Your task to perform on an android device: Go to display settings Image 0: 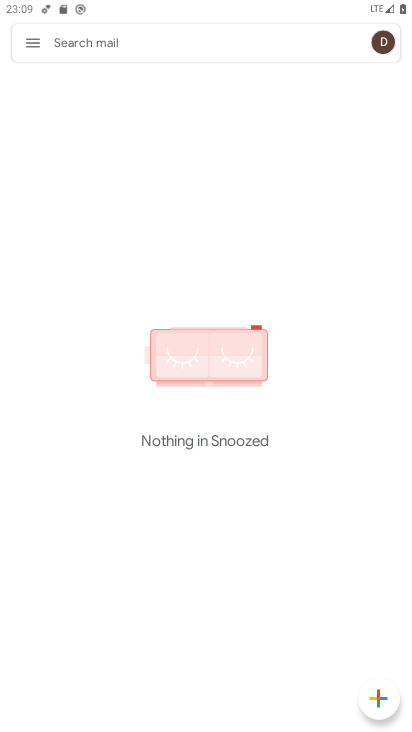
Step 0: press home button
Your task to perform on an android device: Go to display settings Image 1: 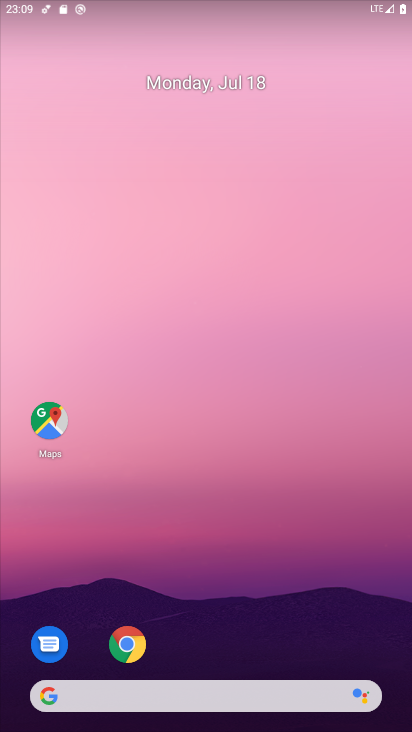
Step 1: drag from (346, 611) to (377, 68)
Your task to perform on an android device: Go to display settings Image 2: 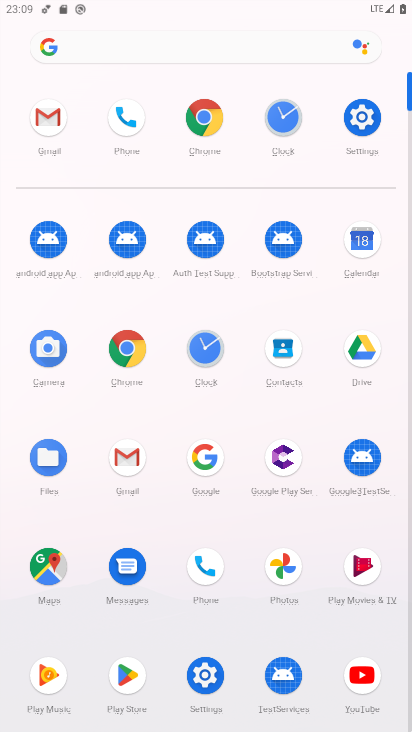
Step 2: click (365, 125)
Your task to perform on an android device: Go to display settings Image 3: 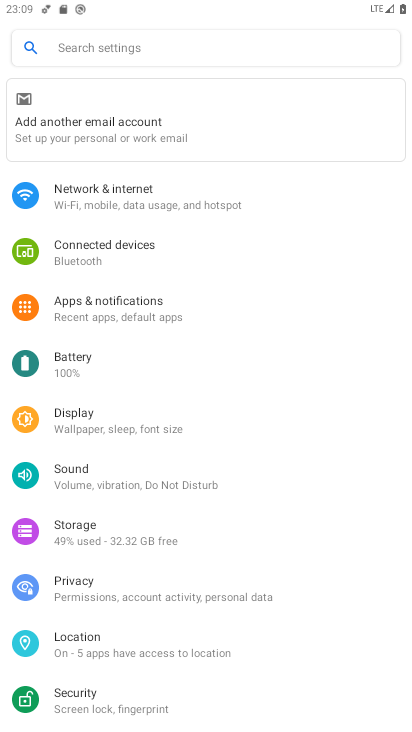
Step 3: drag from (325, 515) to (325, 394)
Your task to perform on an android device: Go to display settings Image 4: 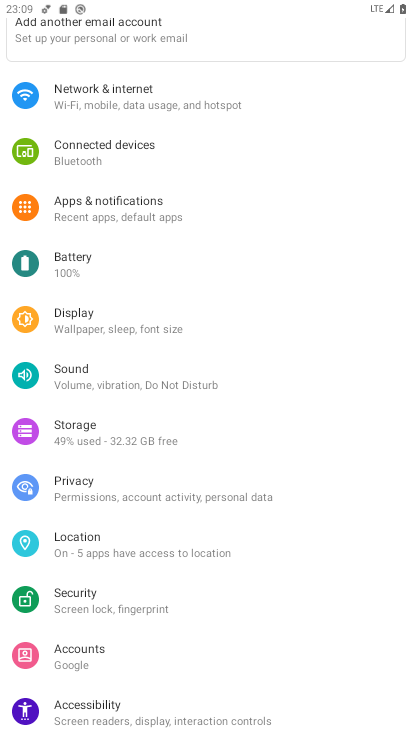
Step 4: drag from (330, 564) to (324, 439)
Your task to perform on an android device: Go to display settings Image 5: 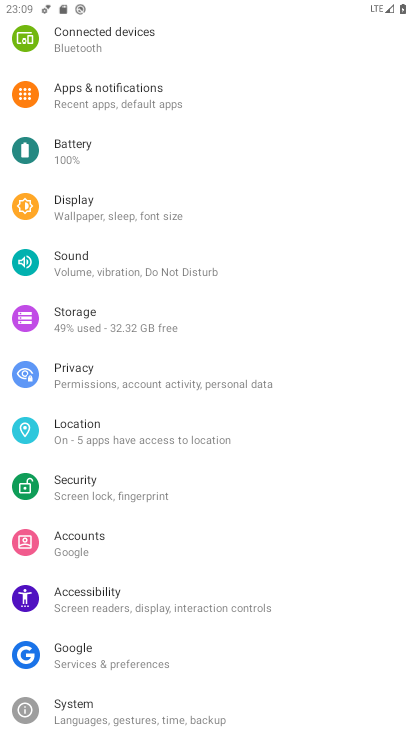
Step 5: drag from (320, 522) to (316, 381)
Your task to perform on an android device: Go to display settings Image 6: 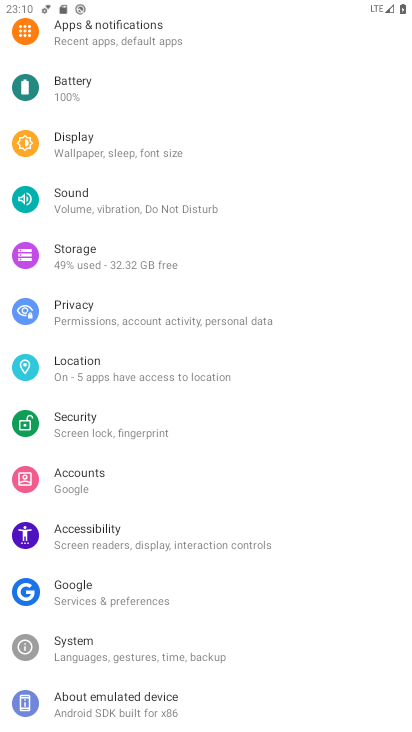
Step 6: drag from (313, 297) to (308, 412)
Your task to perform on an android device: Go to display settings Image 7: 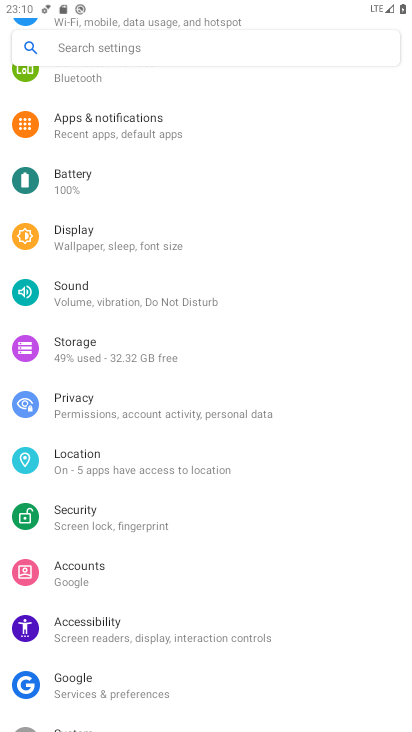
Step 7: drag from (304, 234) to (296, 403)
Your task to perform on an android device: Go to display settings Image 8: 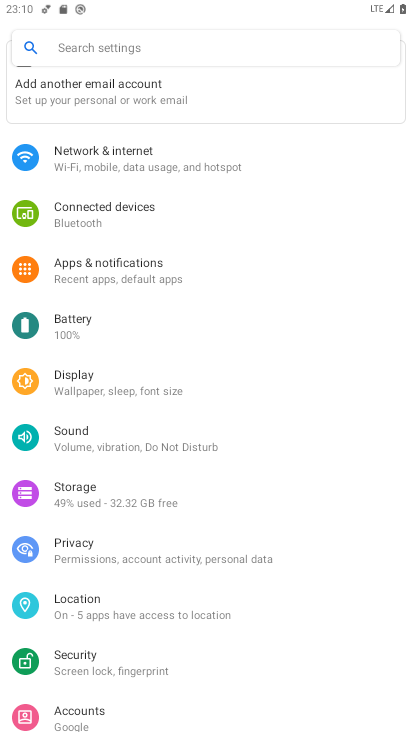
Step 8: drag from (303, 258) to (300, 402)
Your task to perform on an android device: Go to display settings Image 9: 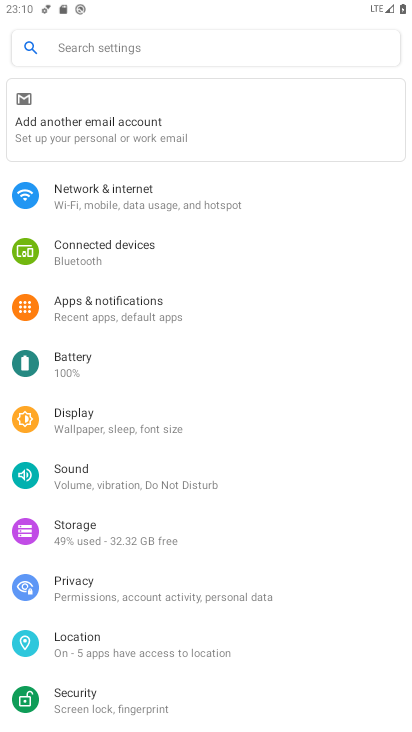
Step 9: drag from (296, 247) to (292, 424)
Your task to perform on an android device: Go to display settings Image 10: 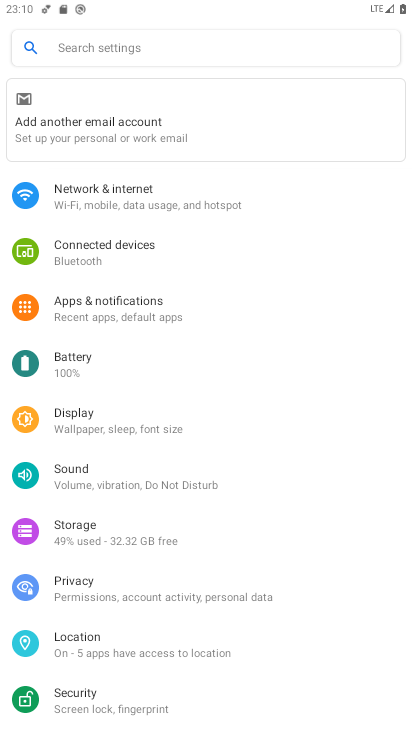
Step 10: drag from (312, 551) to (313, 432)
Your task to perform on an android device: Go to display settings Image 11: 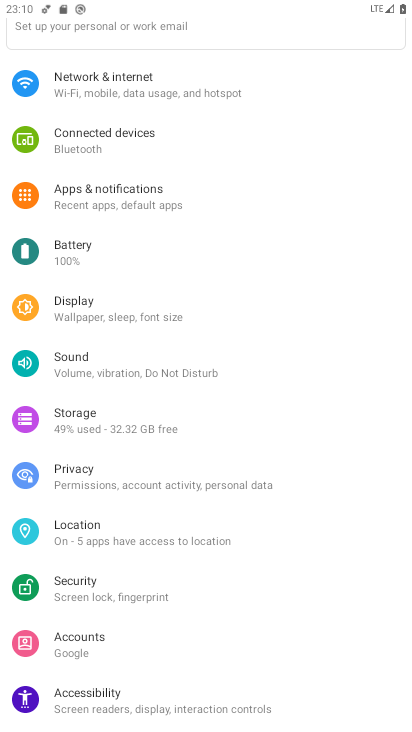
Step 11: drag from (326, 533) to (324, 442)
Your task to perform on an android device: Go to display settings Image 12: 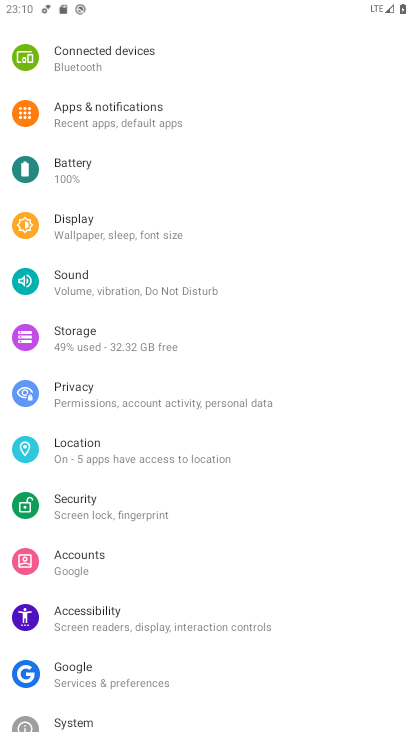
Step 12: click (149, 222)
Your task to perform on an android device: Go to display settings Image 13: 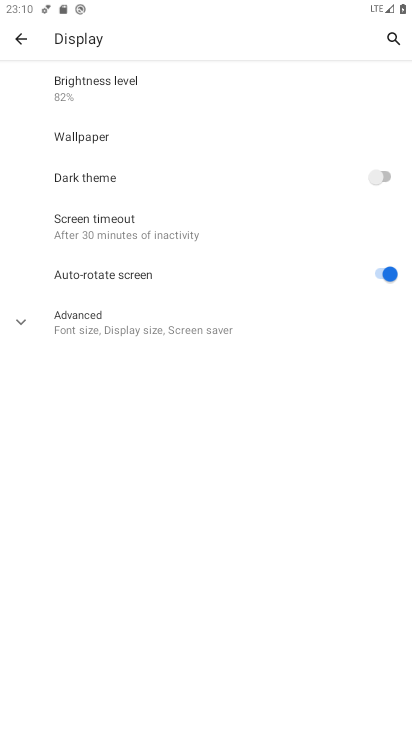
Step 13: click (150, 318)
Your task to perform on an android device: Go to display settings Image 14: 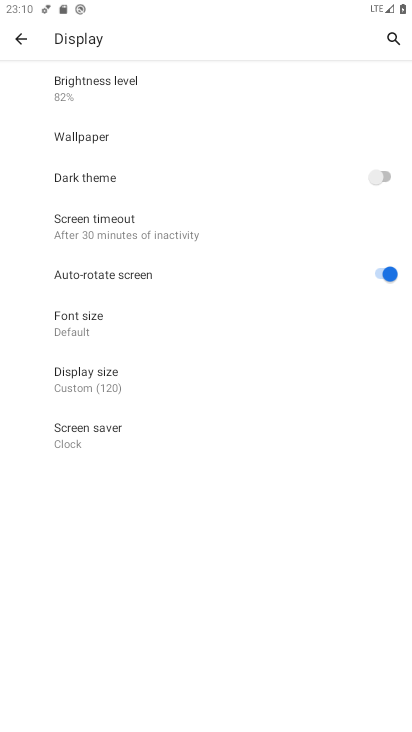
Step 14: task complete